Your task to perform on an android device: toggle priority inbox in the gmail app Image 0: 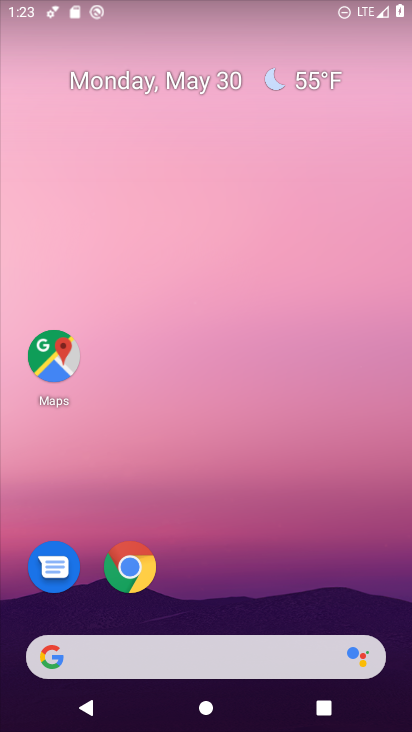
Step 0: drag from (207, 613) to (278, 98)
Your task to perform on an android device: toggle priority inbox in the gmail app Image 1: 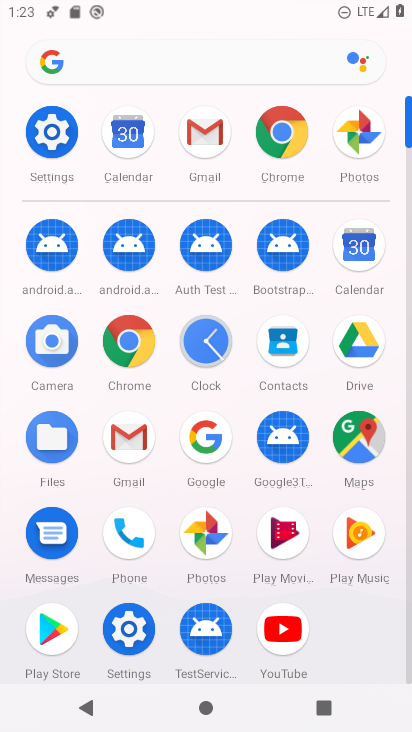
Step 1: click (128, 433)
Your task to perform on an android device: toggle priority inbox in the gmail app Image 2: 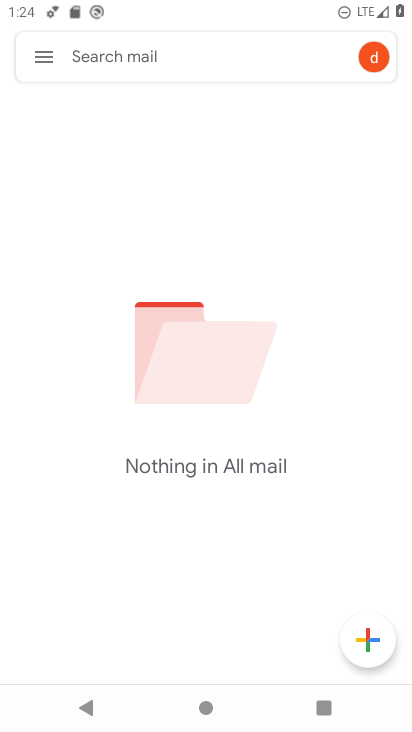
Step 2: click (43, 48)
Your task to perform on an android device: toggle priority inbox in the gmail app Image 3: 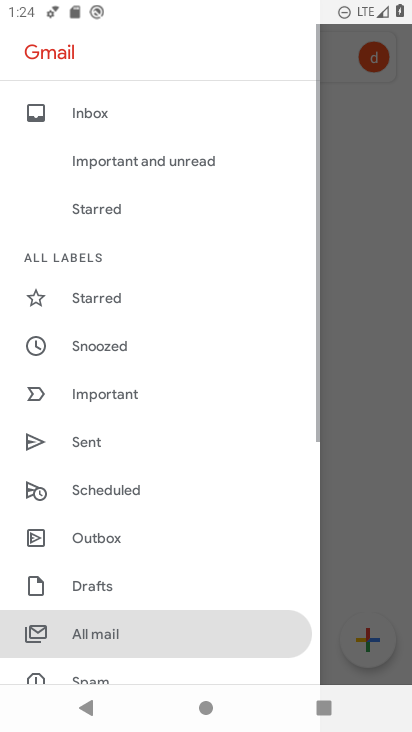
Step 3: drag from (133, 620) to (161, 60)
Your task to perform on an android device: toggle priority inbox in the gmail app Image 4: 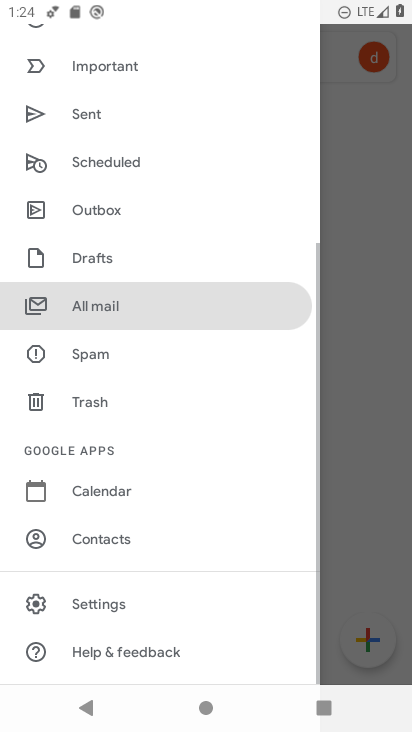
Step 4: click (124, 593)
Your task to perform on an android device: toggle priority inbox in the gmail app Image 5: 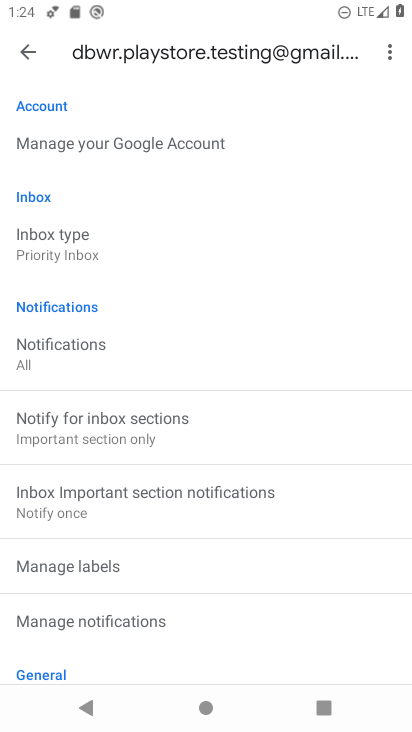
Step 5: click (103, 239)
Your task to perform on an android device: toggle priority inbox in the gmail app Image 6: 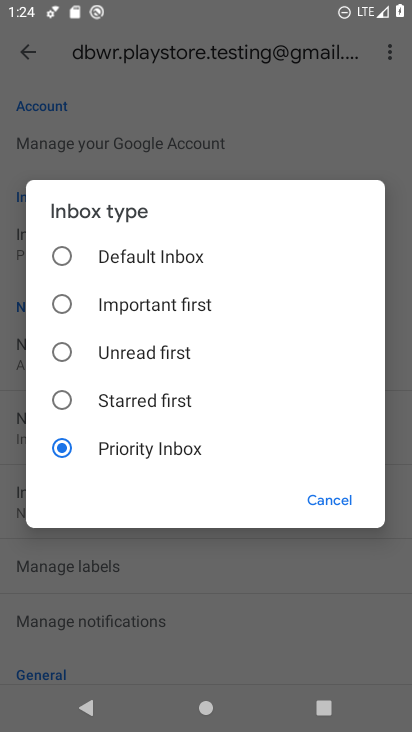
Step 6: click (81, 448)
Your task to perform on an android device: toggle priority inbox in the gmail app Image 7: 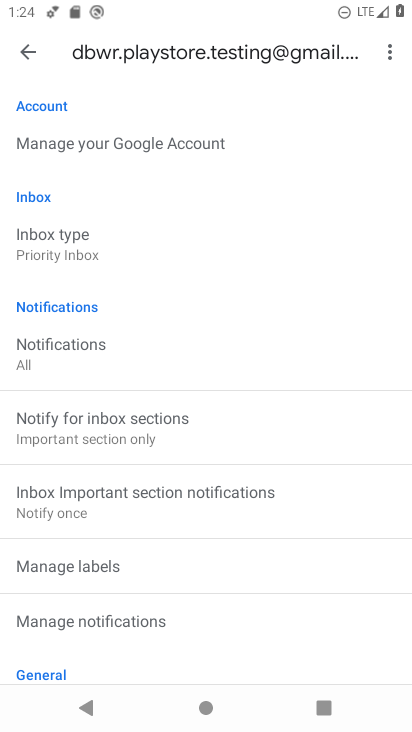
Step 7: task complete